Your task to perform on an android device: What's on my calendar tomorrow? Image 0: 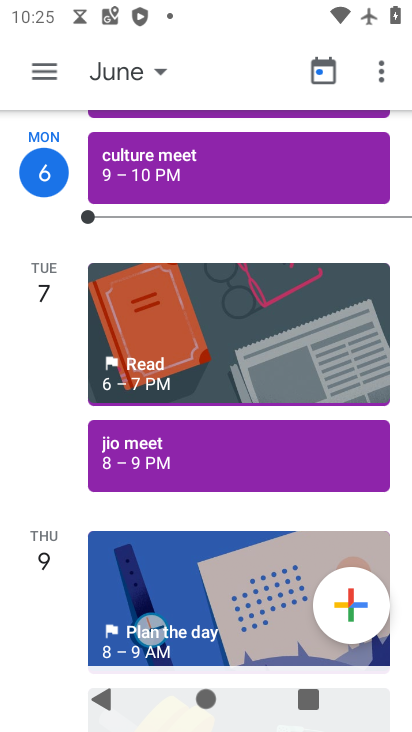
Step 0: drag from (223, 573) to (225, 530)
Your task to perform on an android device: What's on my calendar tomorrow? Image 1: 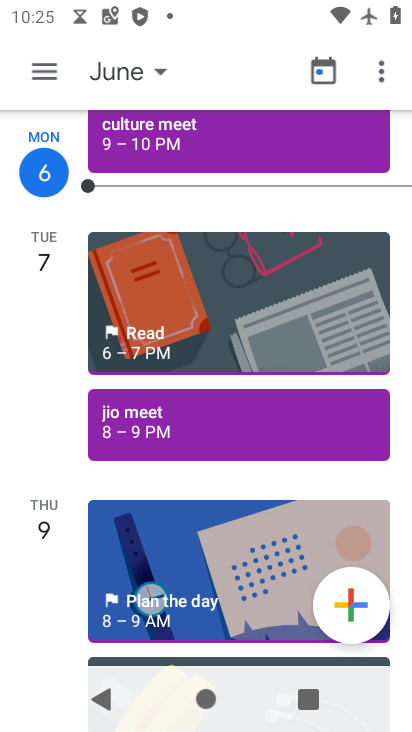
Step 1: press home button
Your task to perform on an android device: What's on my calendar tomorrow? Image 2: 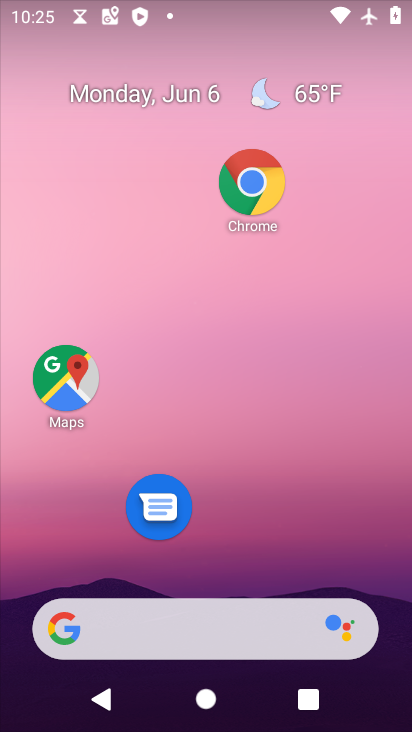
Step 2: drag from (236, 502) to (267, 234)
Your task to perform on an android device: What's on my calendar tomorrow? Image 3: 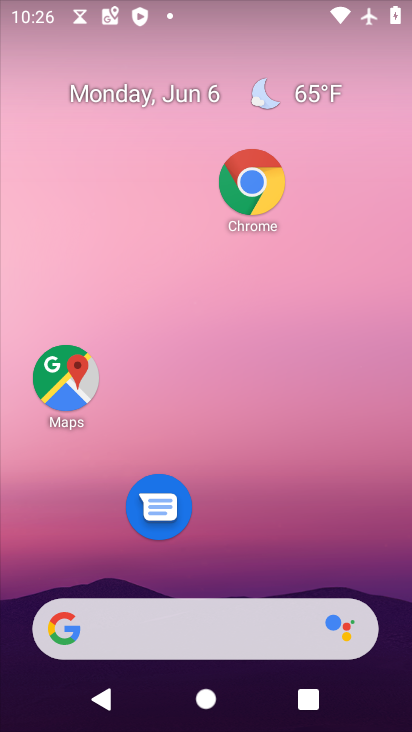
Step 3: drag from (235, 593) to (248, 253)
Your task to perform on an android device: What's on my calendar tomorrow? Image 4: 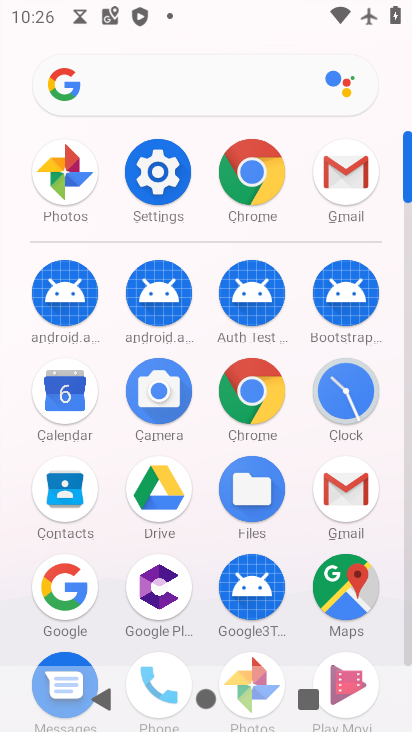
Step 4: click (71, 385)
Your task to perform on an android device: What's on my calendar tomorrow? Image 5: 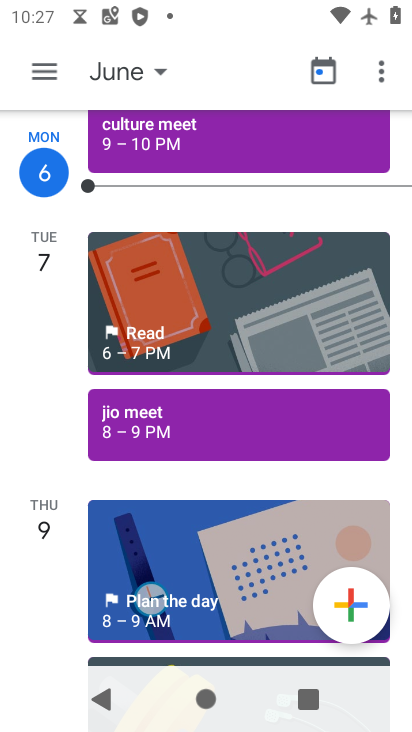
Step 5: task complete